Your task to perform on an android device: Open Google Image 0: 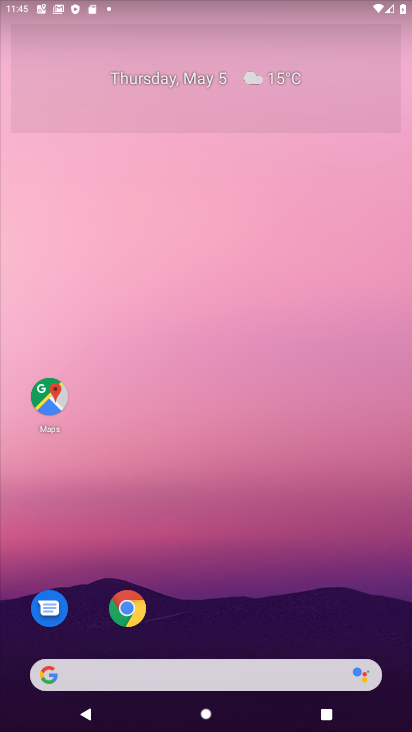
Step 0: drag from (209, 615) to (274, 146)
Your task to perform on an android device: Open Google Image 1: 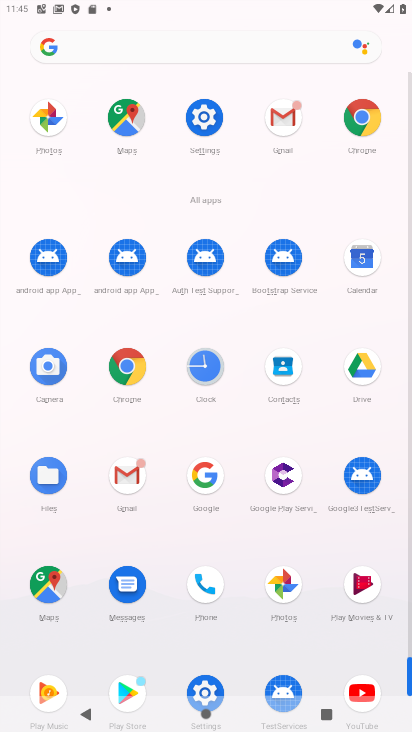
Step 1: click (205, 481)
Your task to perform on an android device: Open Google Image 2: 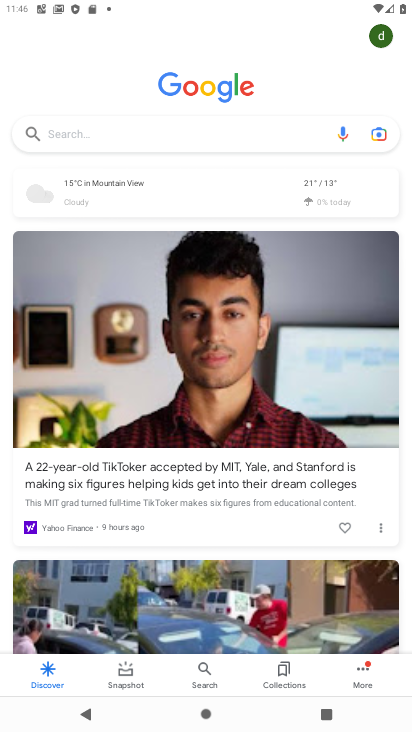
Step 2: task complete